Your task to perform on an android device: Open Google Image 0: 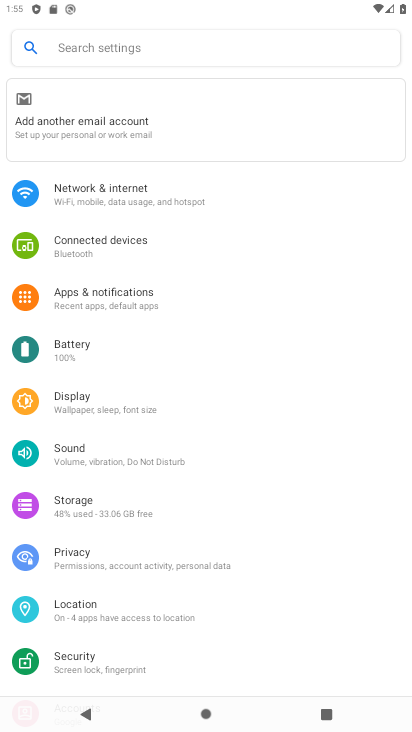
Step 0: press home button
Your task to perform on an android device: Open Google Image 1: 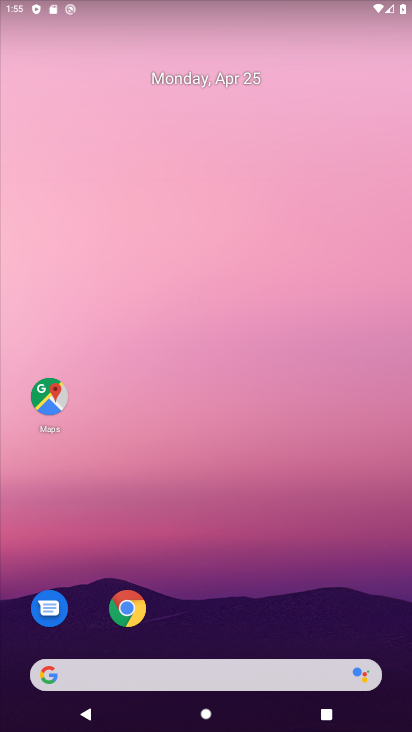
Step 1: drag from (213, 380) to (220, 210)
Your task to perform on an android device: Open Google Image 2: 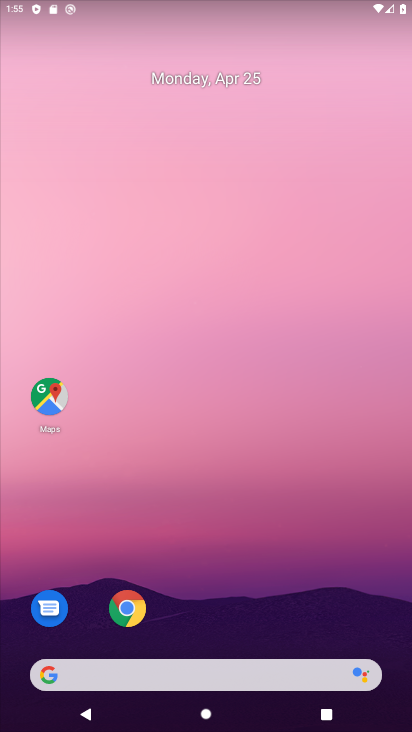
Step 2: drag from (208, 638) to (217, 137)
Your task to perform on an android device: Open Google Image 3: 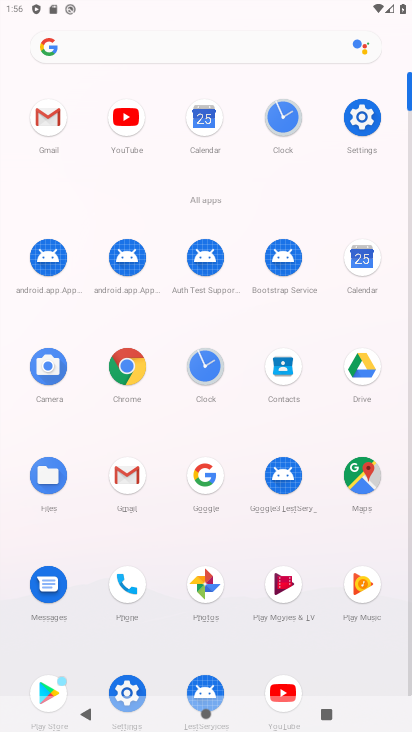
Step 3: click (202, 471)
Your task to perform on an android device: Open Google Image 4: 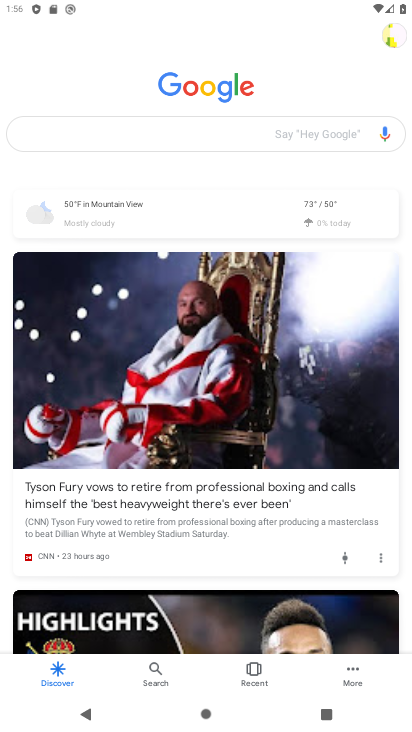
Step 4: task complete